Your task to perform on an android device: refresh tabs in the chrome app Image 0: 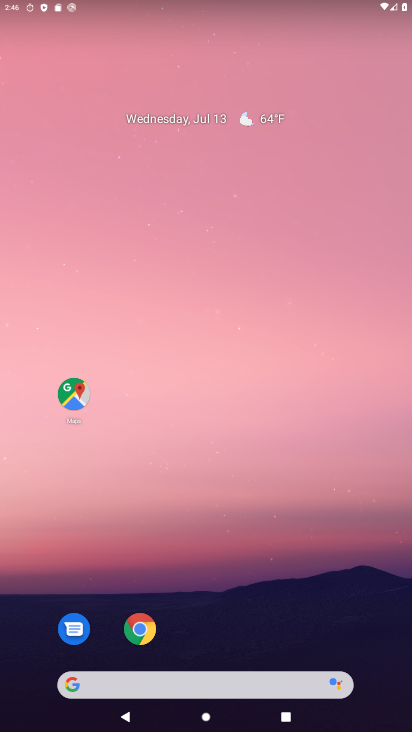
Step 0: drag from (158, 680) to (240, 83)
Your task to perform on an android device: refresh tabs in the chrome app Image 1: 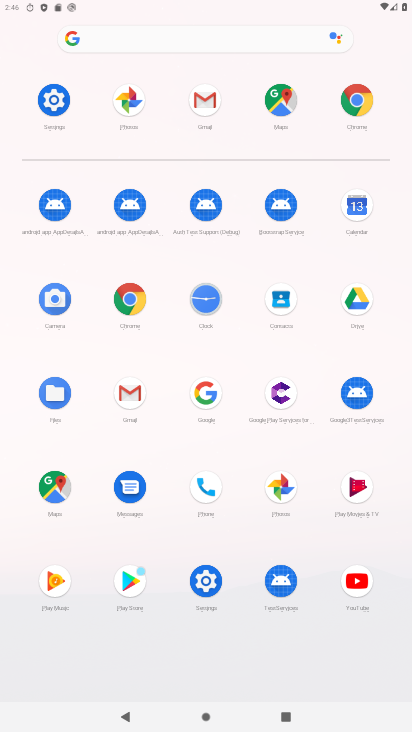
Step 1: click (116, 283)
Your task to perform on an android device: refresh tabs in the chrome app Image 2: 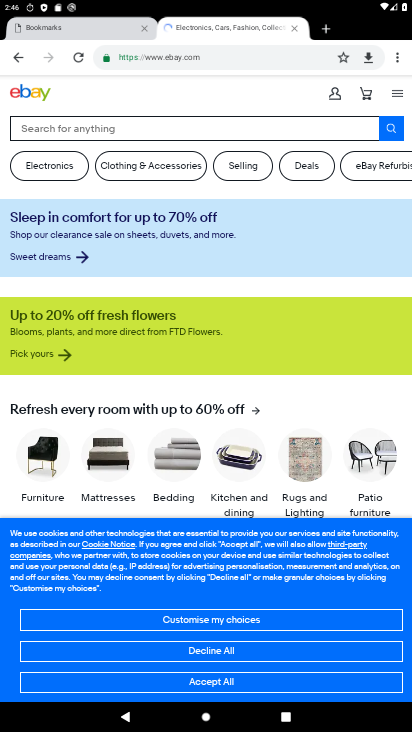
Step 2: drag from (401, 51) to (70, 51)
Your task to perform on an android device: refresh tabs in the chrome app Image 3: 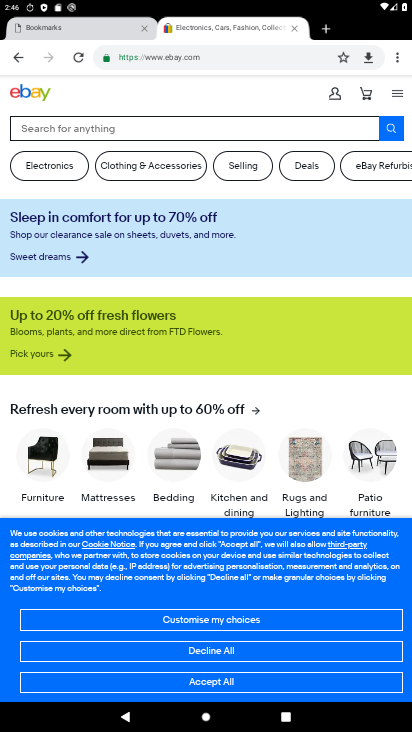
Step 3: click (78, 52)
Your task to perform on an android device: refresh tabs in the chrome app Image 4: 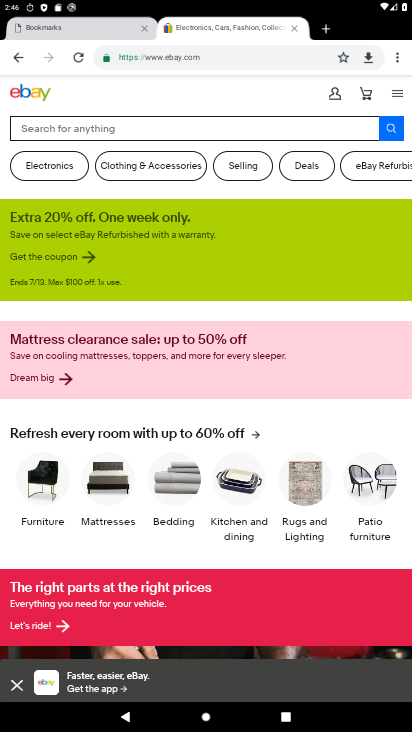
Step 4: task complete